Your task to perform on an android device: Go to Yahoo.com Image 0: 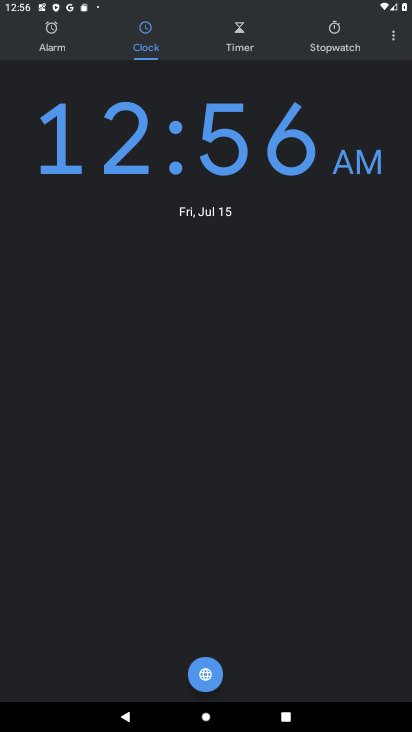
Step 0: press home button
Your task to perform on an android device: Go to Yahoo.com Image 1: 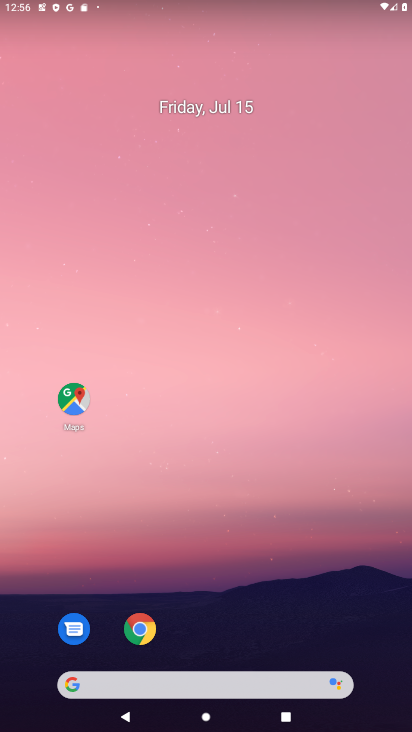
Step 1: click (127, 622)
Your task to perform on an android device: Go to Yahoo.com Image 2: 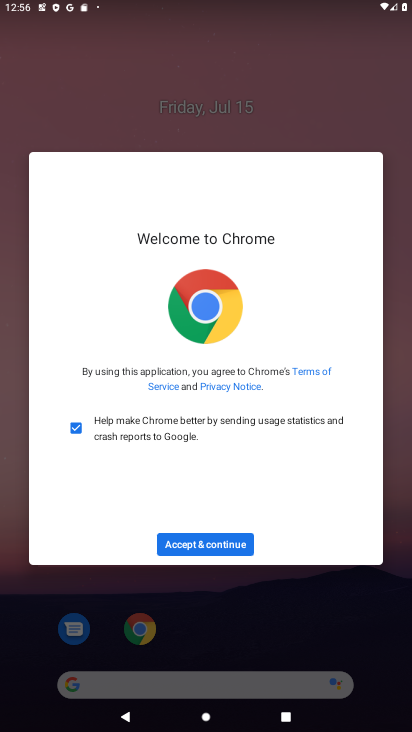
Step 2: click (283, 717)
Your task to perform on an android device: Go to Yahoo.com Image 3: 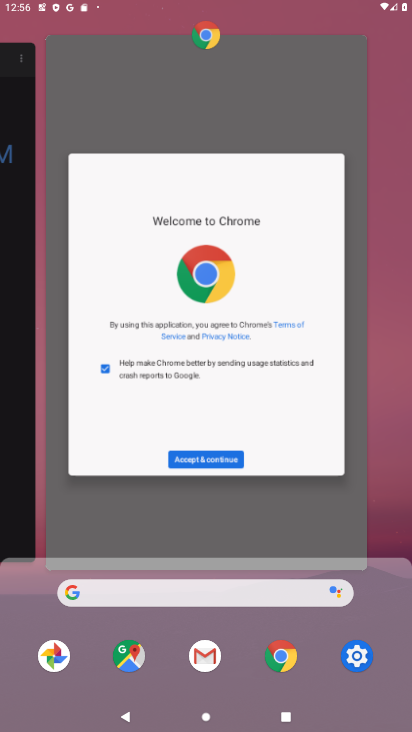
Step 3: click (217, 457)
Your task to perform on an android device: Go to Yahoo.com Image 4: 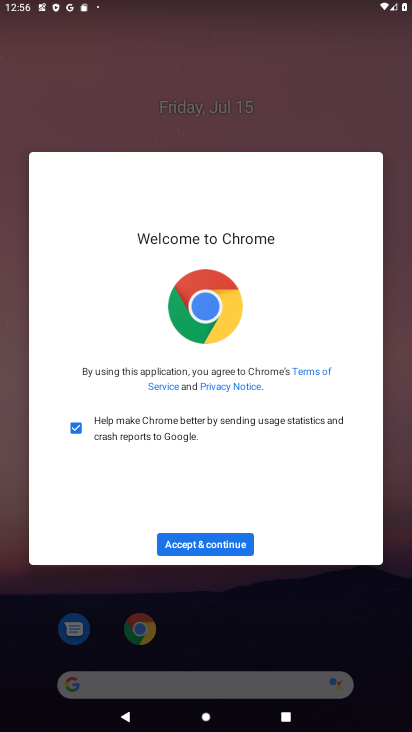
Step 4: click (211, 541)
Your task to perform on an android device: Go to Yahoo.com Image 5: 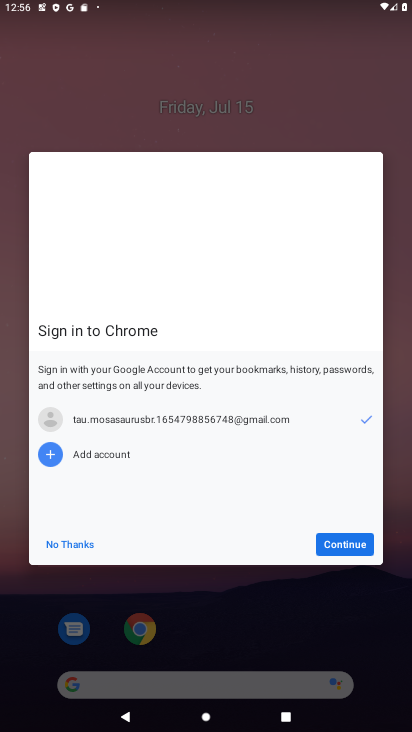
Step 5: click (328, 544)
Your task to perform on an android device: Go to Yahoo.com Image 6: 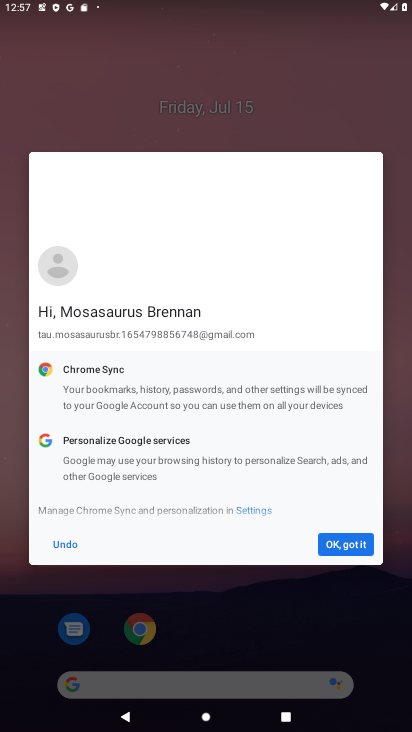
Step 6: click (327, 545)
Your task to perform on an android device: Go to Yahoo.com Image 7: 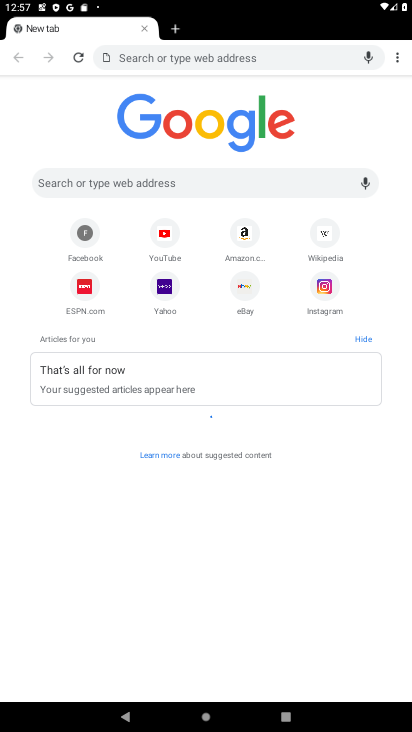
Step 7: click (239, 176)
Your task to perform on an android device: Go to Yahoo.com Image 8: 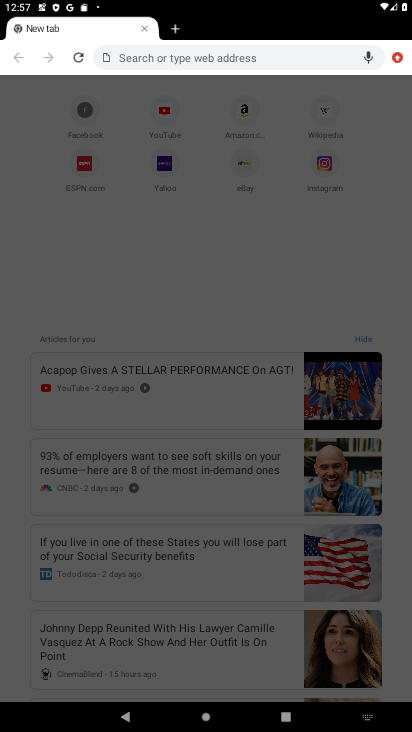
Step 8: type "Yahoo.com"
Your task to perform on an android device: Go to Yahoo.com Image 9: 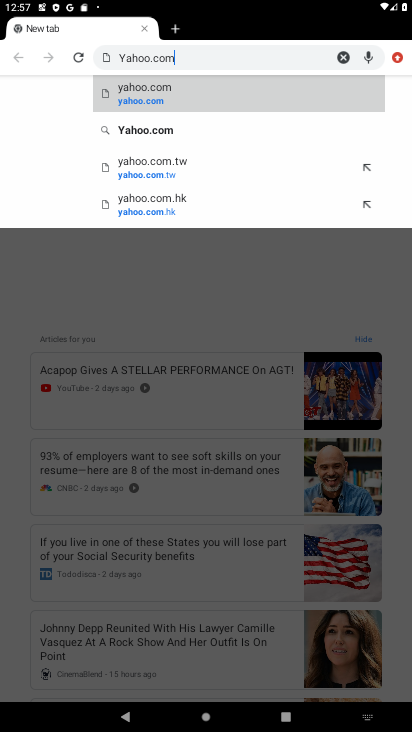
Step 9: click (161, 123)
Your task to perform on an android device: Go to Yahoo.com Image 10: 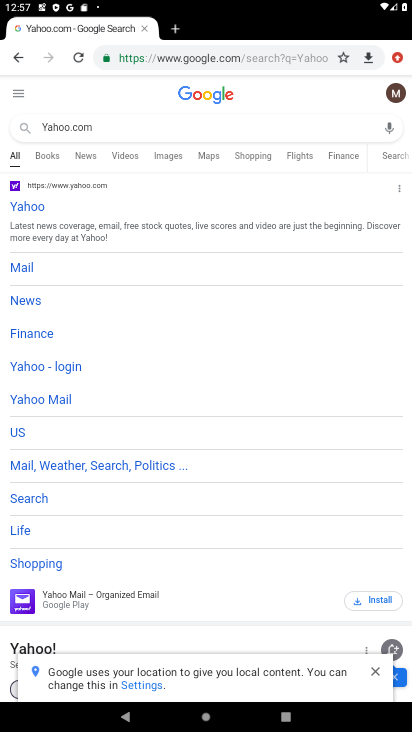
Step 10: task complete